Your task to perform on an android device: open app "Google Duo" (install if not already installed) Image 0: 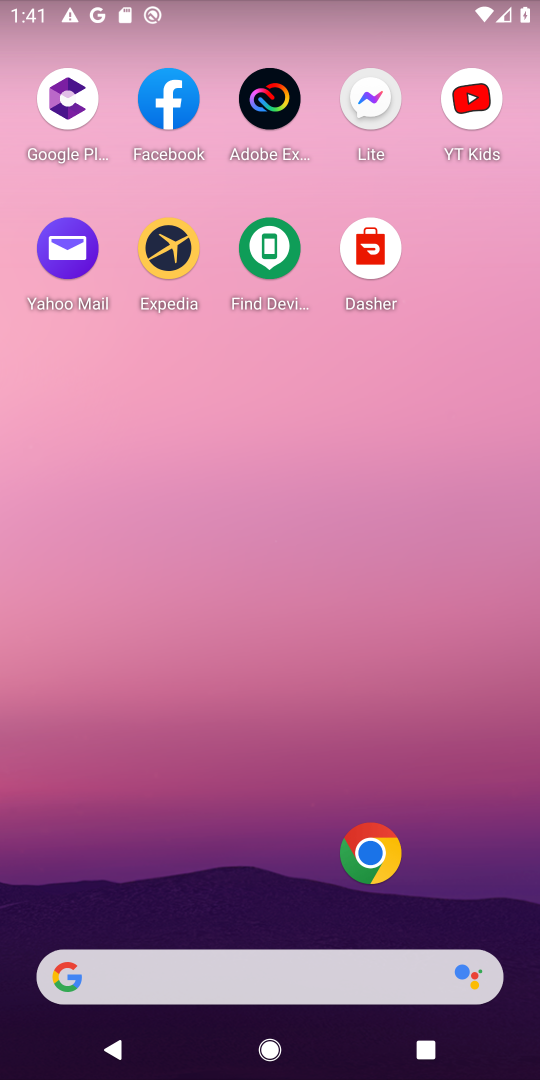
Step 0: drag from (522, 980) to (473, 200)
Your task to perform on an android device: open app "Google Duo" (install if not already installed) Image 1: 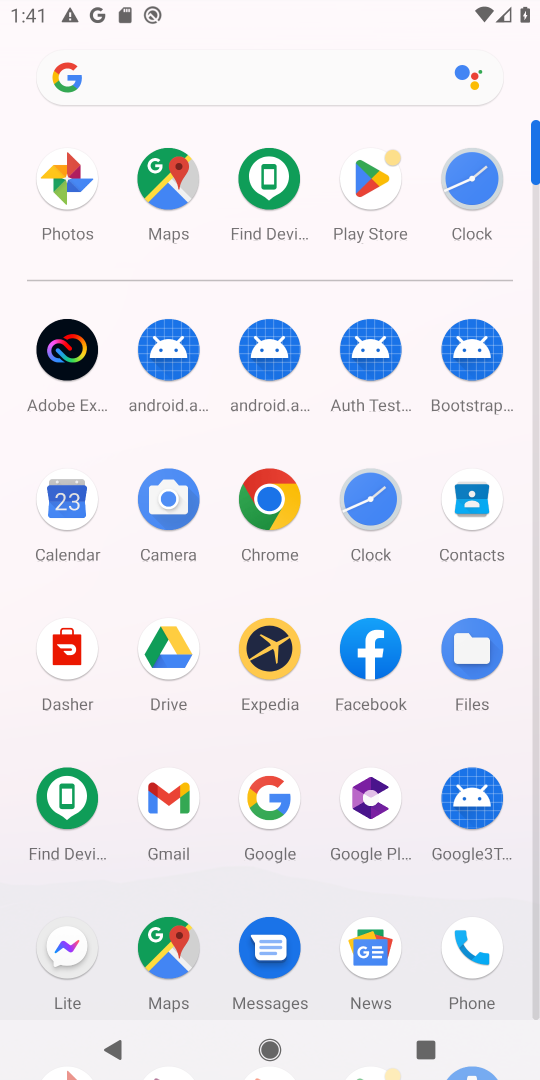
Step 1: click (539, 1002)
Your task to perform on an android device: open app "Google Duo" (install if not already installed) Image 2: 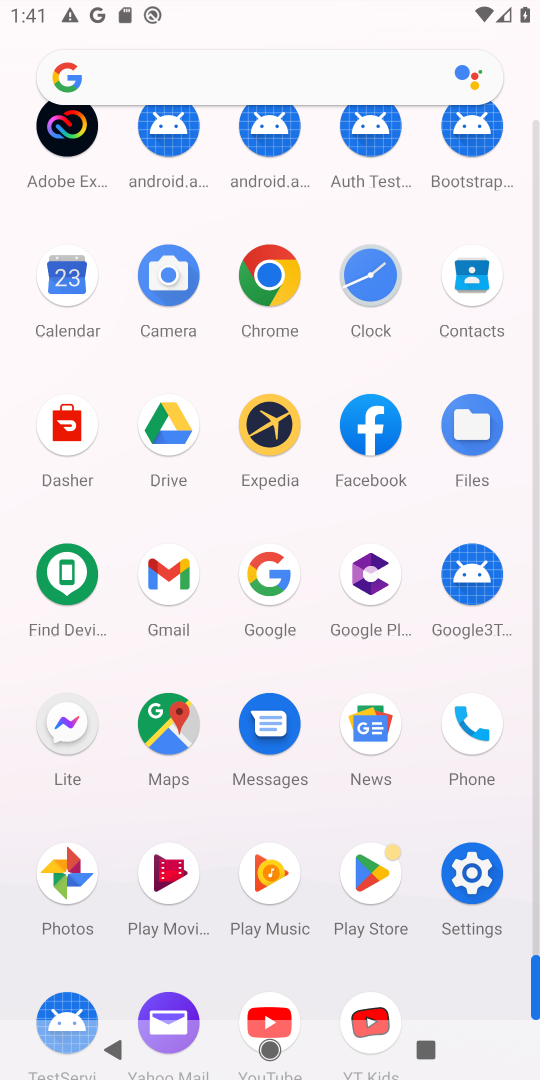
Step 2: click (374, 873)
Your task to perform on an android device: open app "Google Duo" (install if not already installed) Image 3: 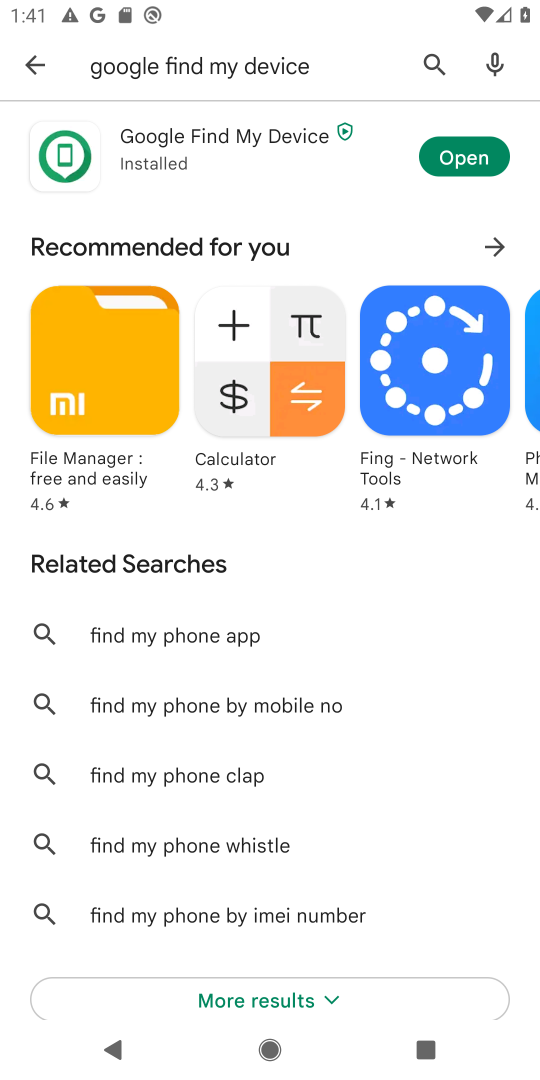
Step 3: click (430, 56)
Your task to perform on an android device: open app "Google Duo" (install if not already installed) Image 4: 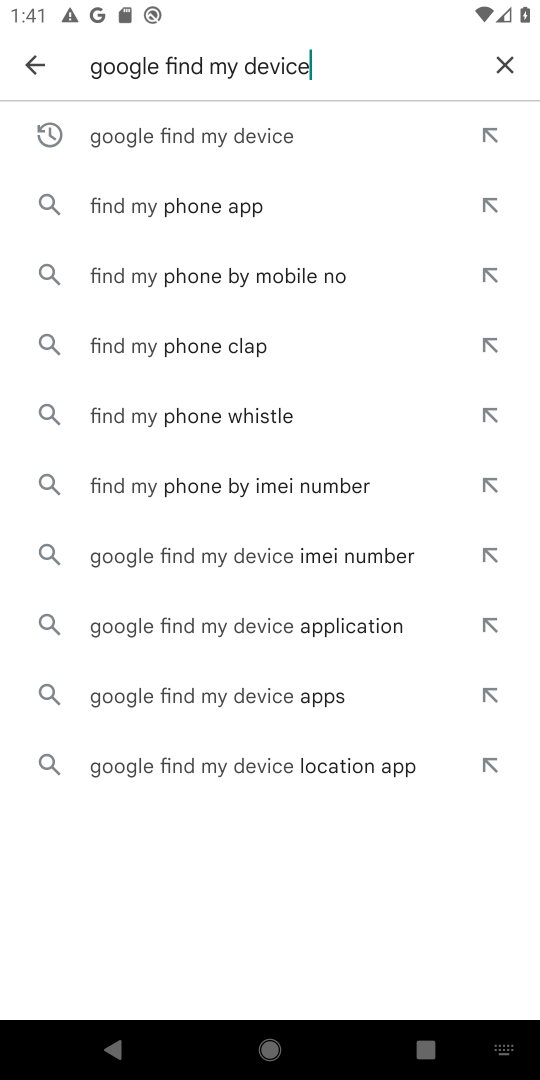
Step 4: click (501, 58)
Your task to perform on an android device: open app "Google Duo" (install if not already installed) Image 5: 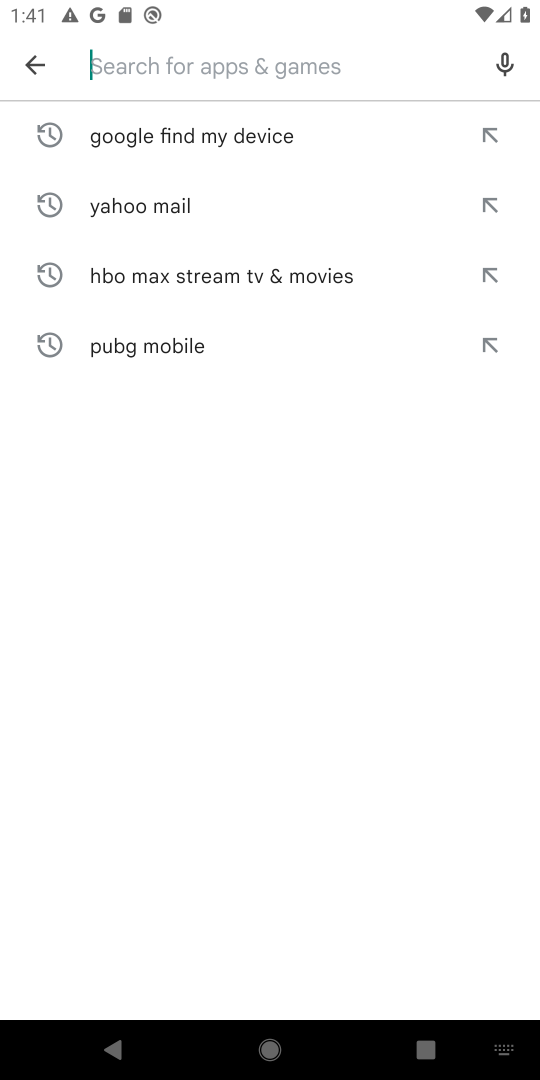
Step 5: type "Google Duo"
Your task to perform on an android device: open app "Google Duo" (install if not already installed) Image 6: 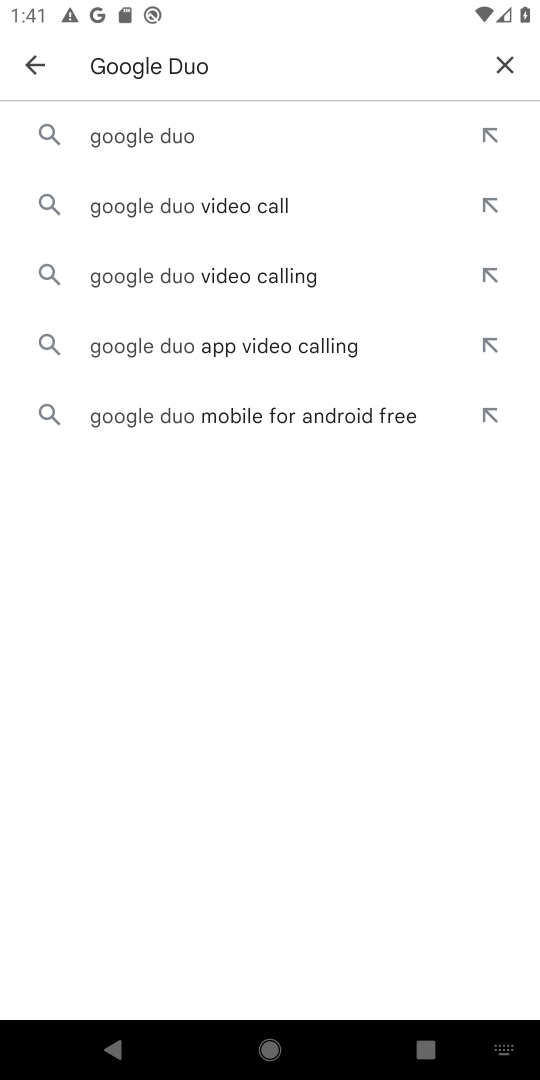
Step 6: click (170, 126)
Your task to perform on an android device: open app "Google Duo" (install if not already installed) Image 7: 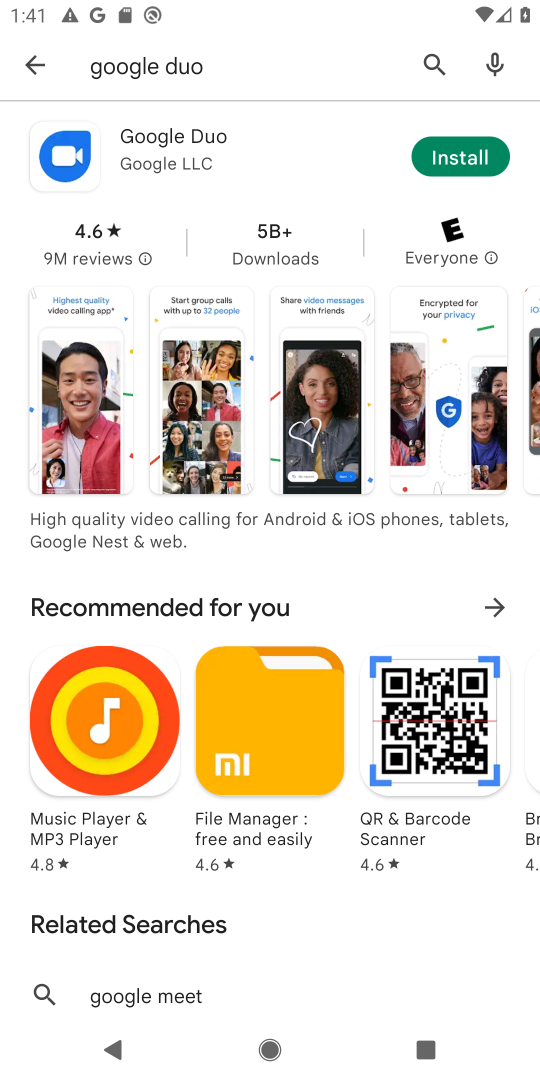
Step 7: click (458, 155)
Your task to perform on an android device: open app "Google Duo" (install if not already installed) Image 8: 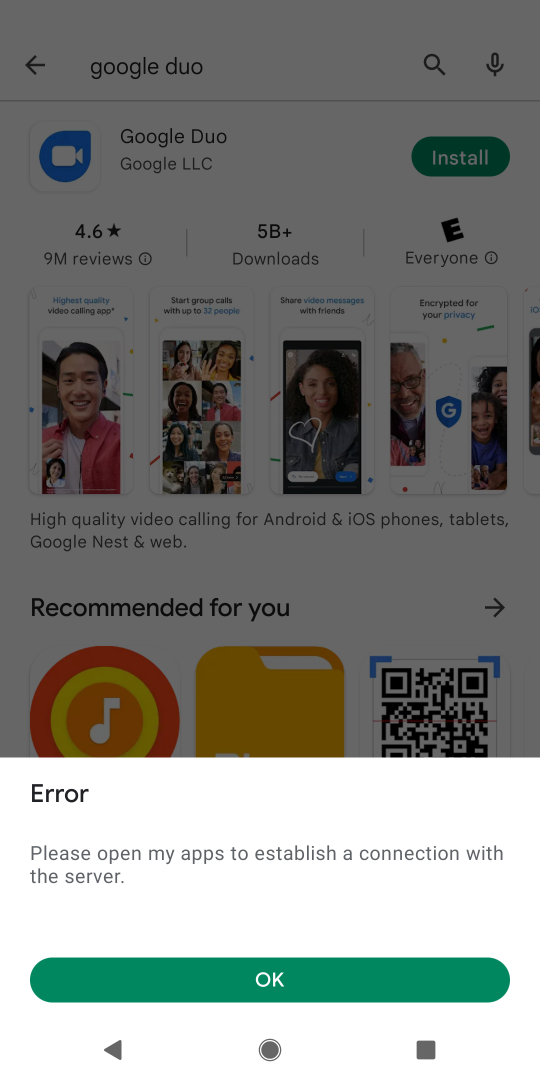
Step 8: click (274, 982)
Your task to perform on an android device: open app "Google Duo" (install if not already installed) Image 9: 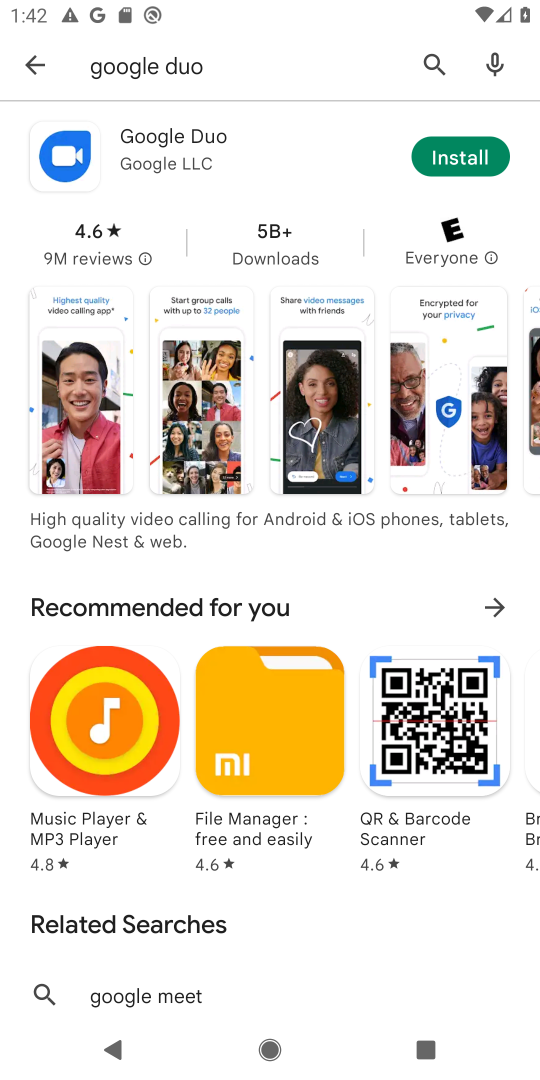
Step 9: click (458, 155)
Your task to perform on an android device: open app "Google Duo" (install if not already installed) Image 10: 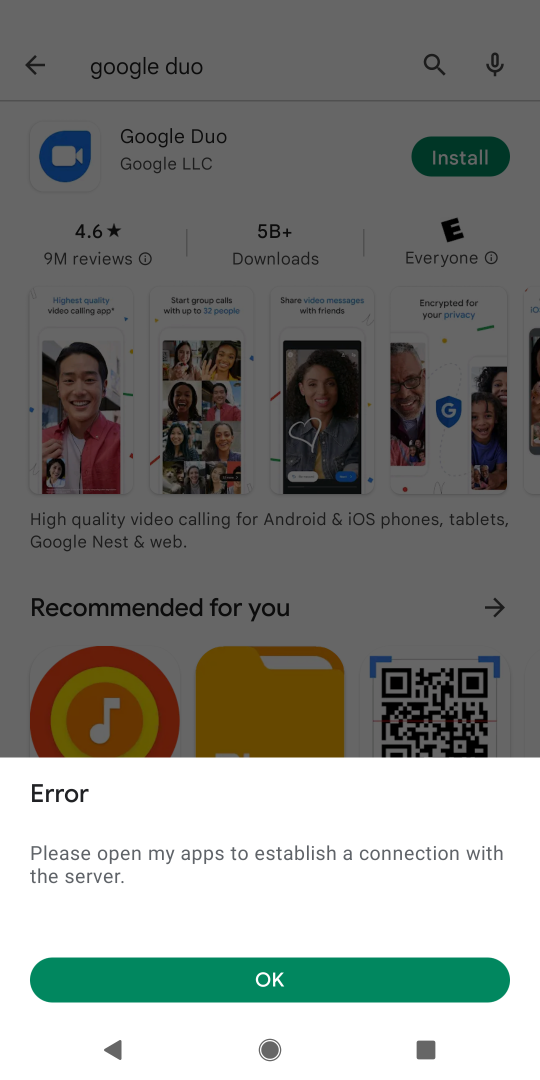
Step 10: task complete